Your task to perform on an android device: remove spam from my inbox in the gmail app Image 0: 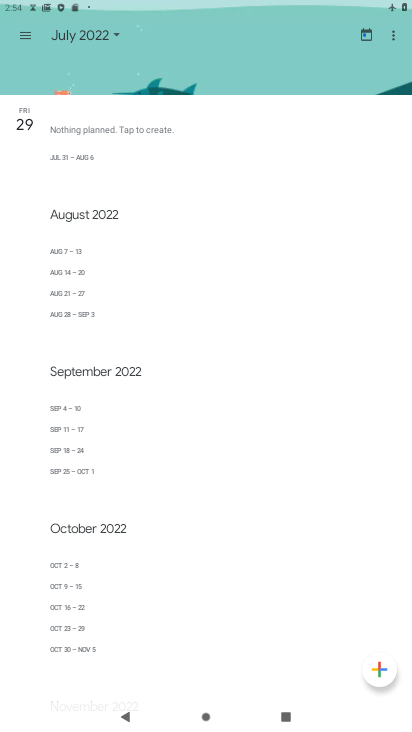
Step 0: press home button
Your task to perform on an android device: remove spam from my inbox in the gmail app Image 1: 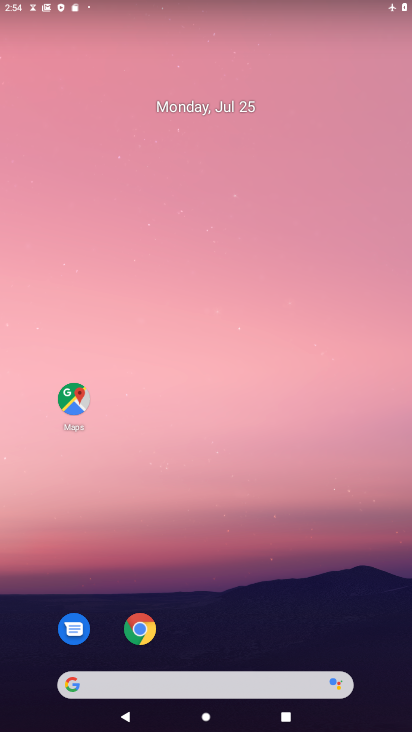
Step 1: drag from (259, 613) to (207, 77)
Your task to perform on an android device: remove spam from my inbox in the gmail app Image 2: 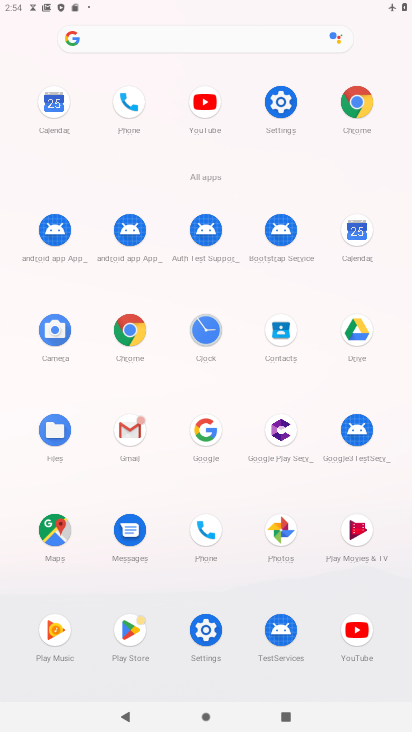
Step 2: click (124, 431)
Your task to perform on an android device: remove spam from my inbox in the gmail app Image 3: 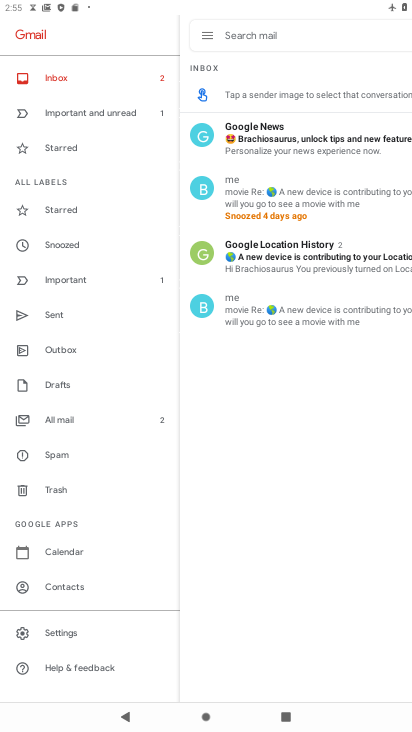
Step 3: click (79, 460)
Your task to perform on an android device: remove spam from my inbox in the gmail app Image 4: 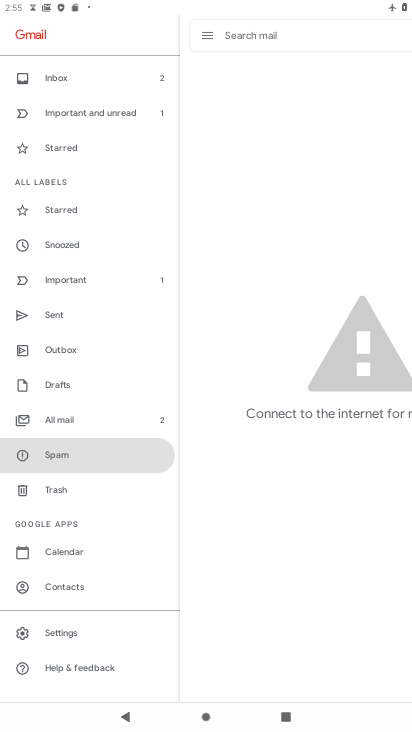
Step 4: task complete